Your task to perform on an android device: Open calendar and show me the third week of next month Image 0: 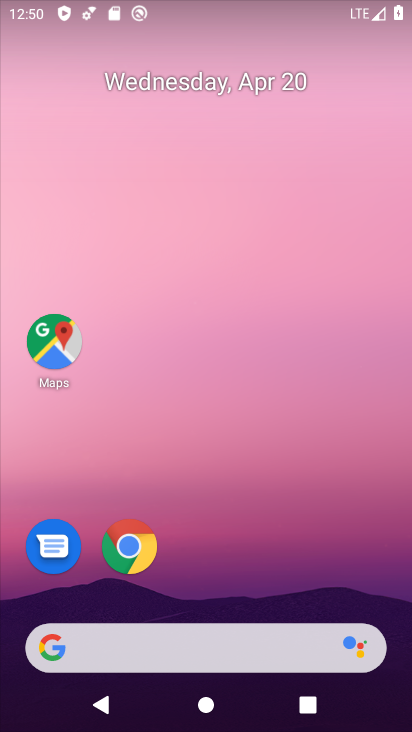
Step 0: drag from (266, 393) to (341, 15)
Your task to perform on an android device: Open calendar and show me the third week of next month Image 1: 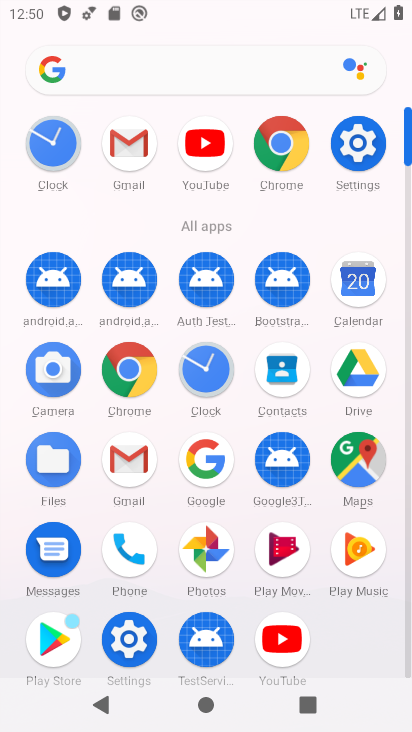
Step 1: click (357, 301)
Your task to perform on an android device: Open calendar and show me the third week of next month Image 2: 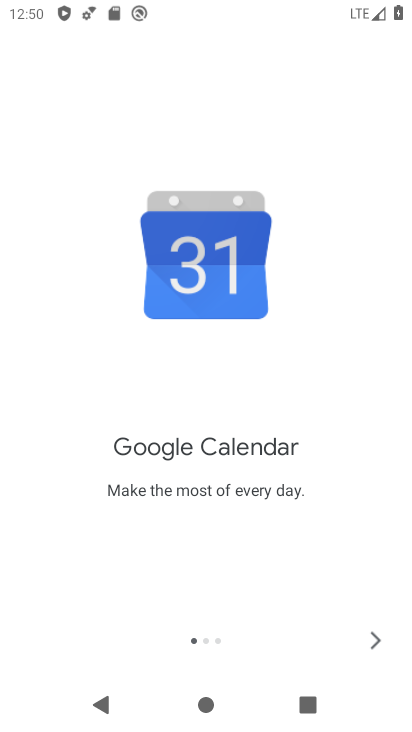
Step 2: click (375, 629)
Your task to perform on an android device: Open calendar and show me the third week of next month Image 3: 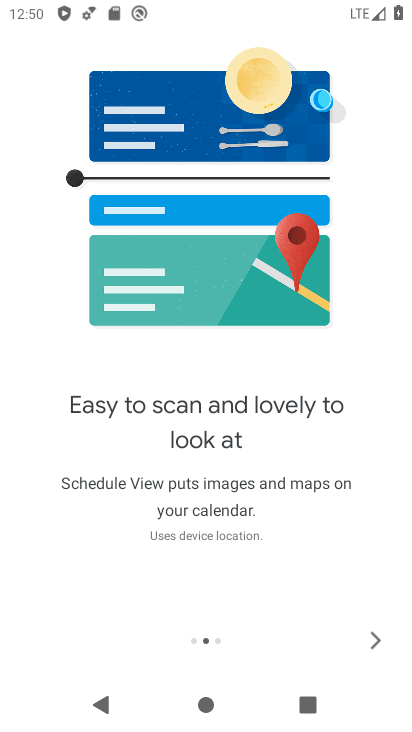
Step 3: click (380, 651)
Your task to perform on an android device: Open calendar and show me the third week of next month Image 4: 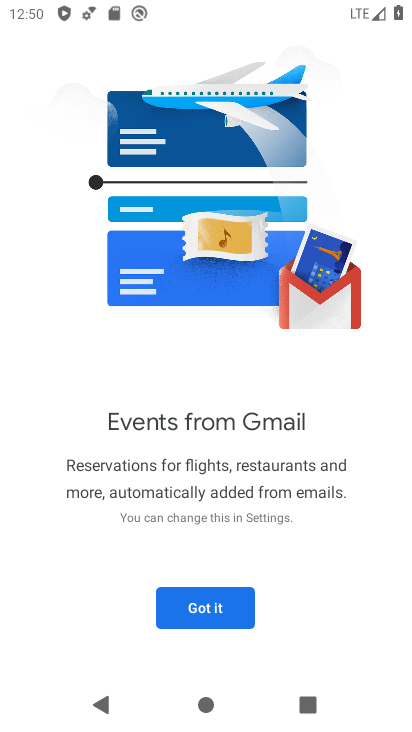
Step 4: click (168, 598)
Your task to perform on an android device: Open calendar and show me the third week of next month Image 5: 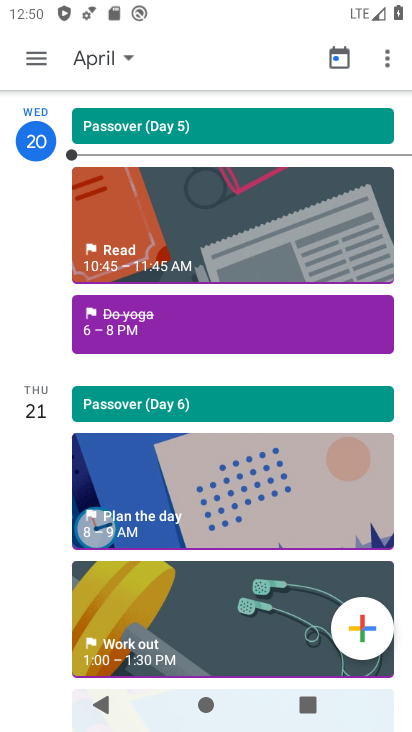
Step 5: click (87, 53)
Your task to perform on an android device: Open calendar and show me the third week of next month Image 6: 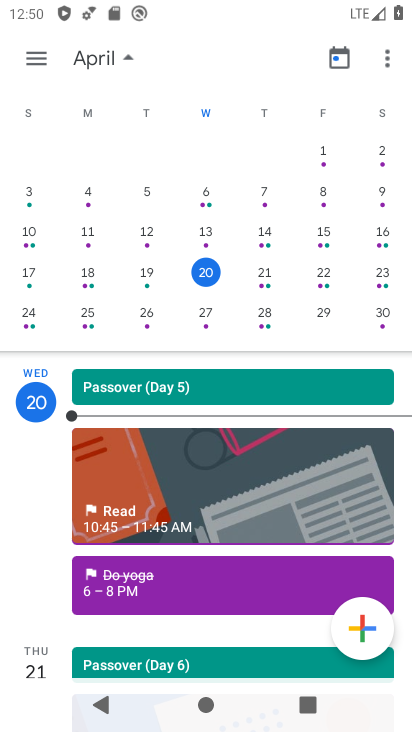
Step 6: drag from (357, 294) to (8, 280)
Your task to perform on an android device: Open calendar and show me the third week of next month Image 7: 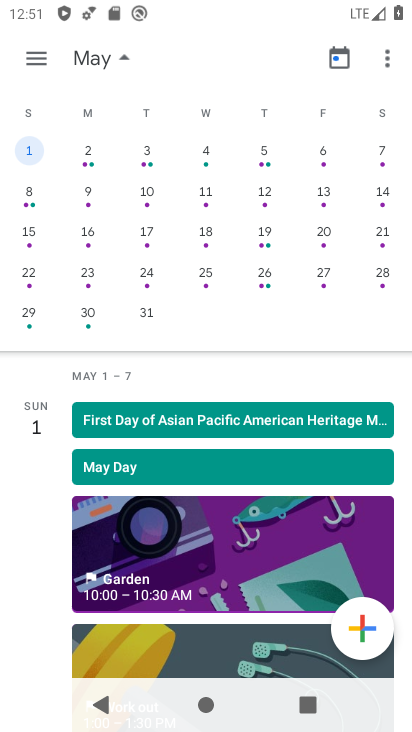
Step 7: click (325, 308)
Your task to perform on an android device: Open calendar and show me the third week of next month Image 8: 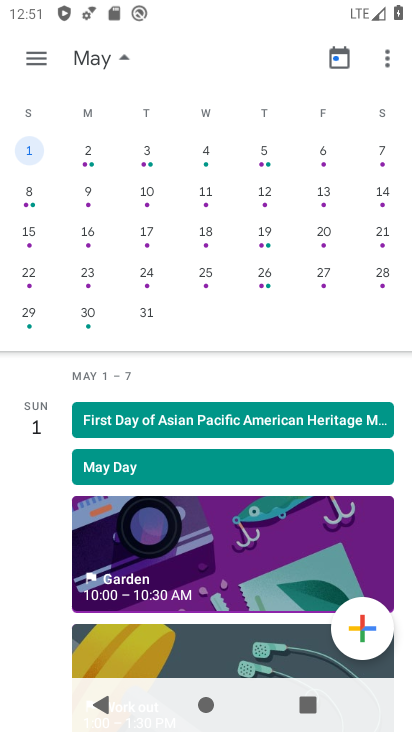
Step 8: click (14, 230)
Your task to perform on an android device: Open calendar and show me the third week of next month Image 9: 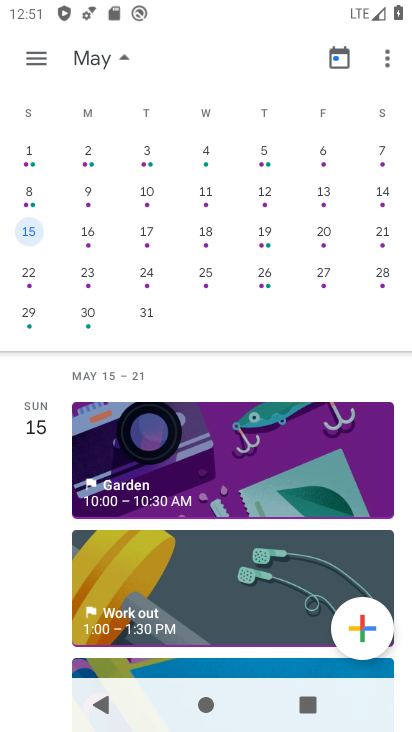
Step 9: click (22, 229)
Your task to perform on an android device: Open calendar and show me the third week of next month Image 10: 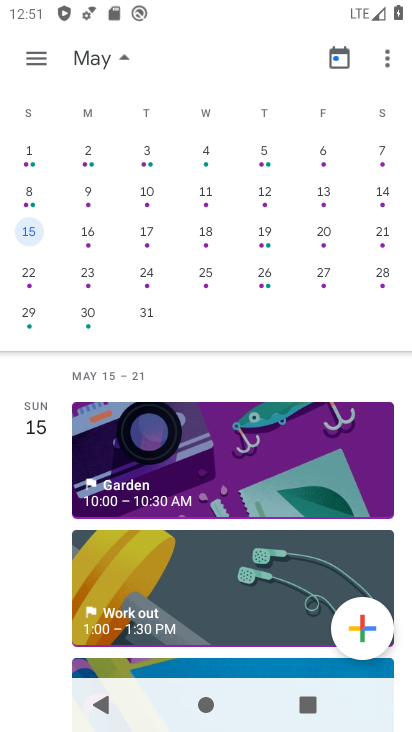
Step 10: click (43, 52)
Your task to perform on an android device: Open calendar and show me the third week of next month Image 11: 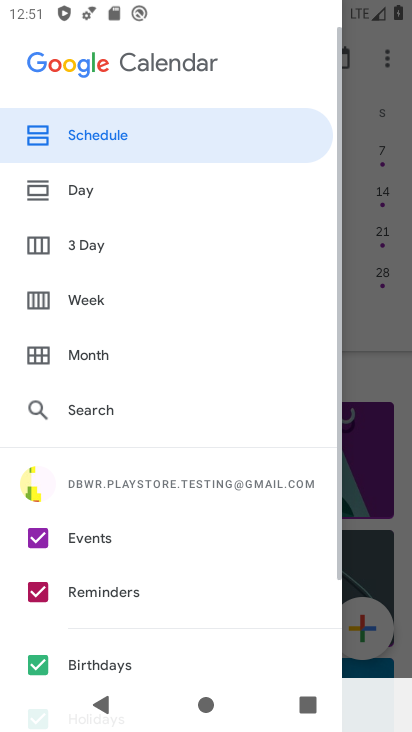
Step 11: click (109, 304)
Your task to perform on an android device: Open calendar and show me the third week of next month Image 12: 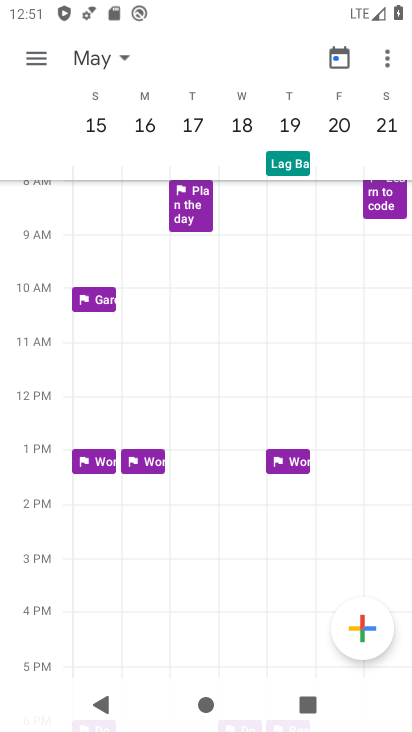
Step 12: task complete